Your task to perform on an android device: What's the weather today? Image 0: 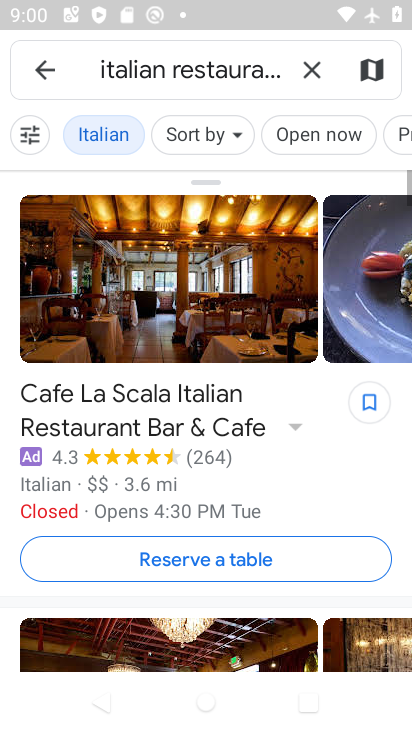
Step 0: press home button
Your task to perform on an android device: What's the weather today? Image 1: 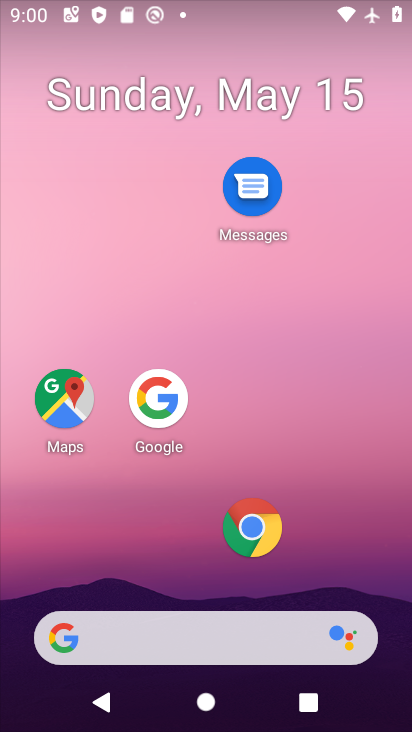
Step 1: click (67, 638)
Your task to perform on an android device: What's the weather today? Image 2: 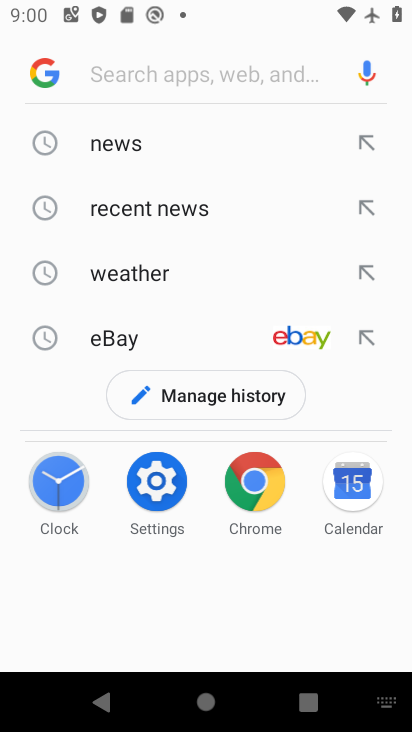
Step 2: click (132, 279)
Your task to perform on an android device: What's the weather today? Image 3: 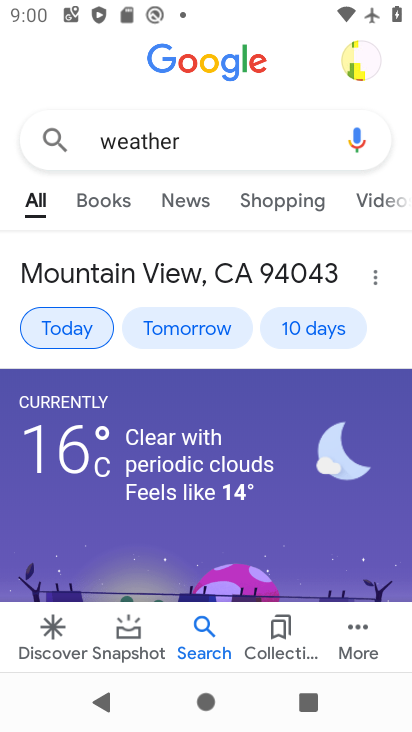
Step 3: task complete